Your task to perform on an android device: turn off smart reply in the gmail app Image 0: 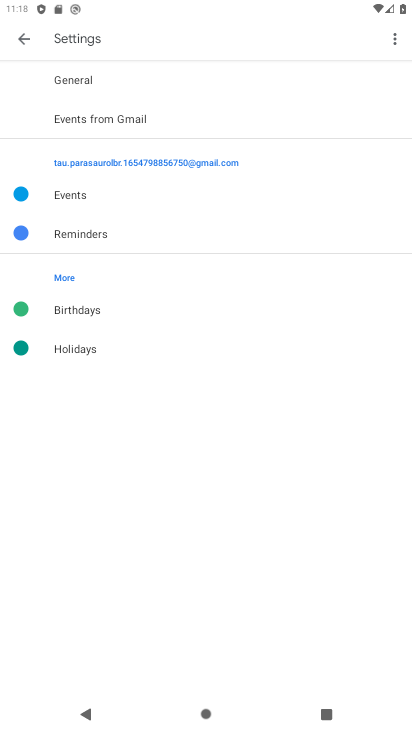
Step 0: press home button
Your task to perform on an android device: turn off smart reply in the gmail app Image 1: 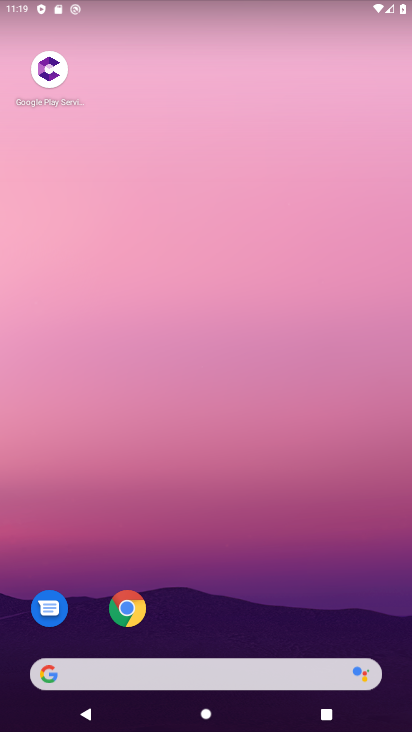
Step 1: drag from (204, 623) to (241, 79)
Your task to perform on an android device: turn off smart reply in the gmail app Image 2: 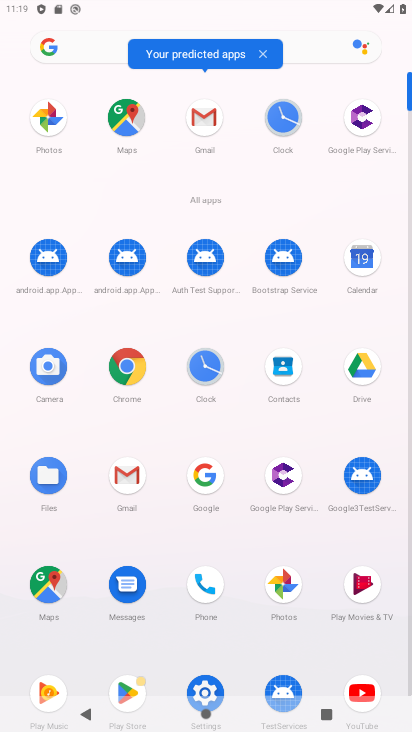
Step 2: click (124, 480)
Your task to perform on an android device: turn off smart reply in the gmail app Image 3: 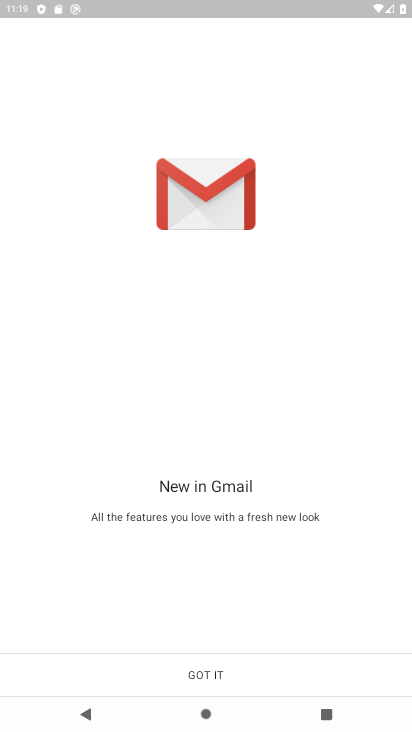
Step 3: click (244, 672)
Your task to perform on an android device: turn off smart reply in the gmail app Image 4: 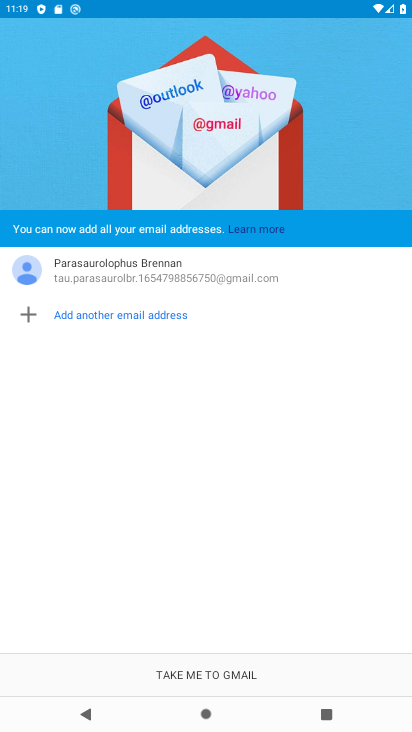
Step 4: click (244, 672)
Your task to perform on an android device: turn off smart reply in the gmail app Image 5: 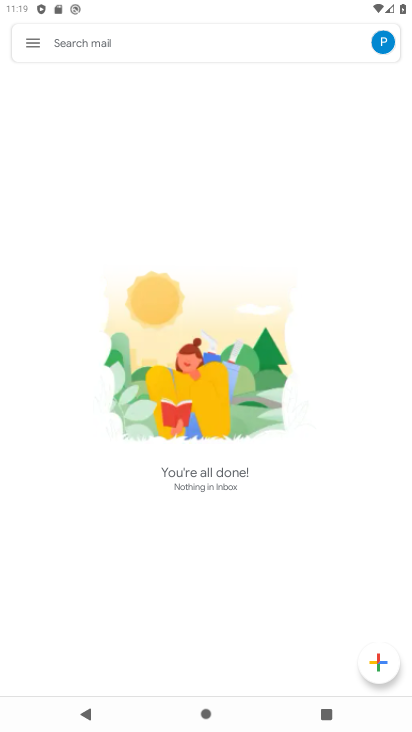
Step 5: click (37, 45)
Your task to perform on an android device: turn off smart reply in the gmail app Image 6: 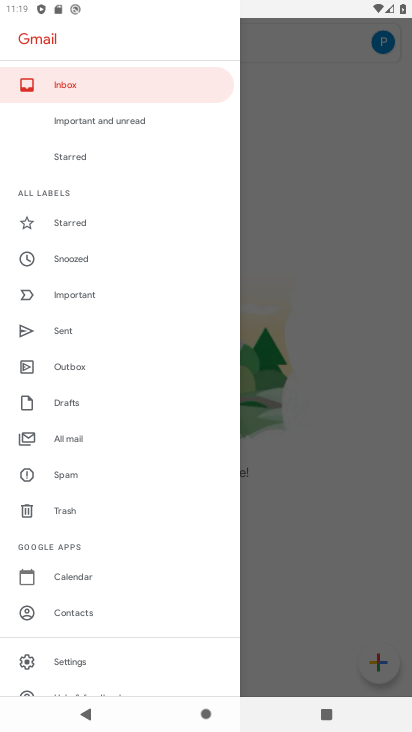
Step 6: click (80, 664)
Your task to perform on an android device: turn off smart reply in the gmail app Image 7: 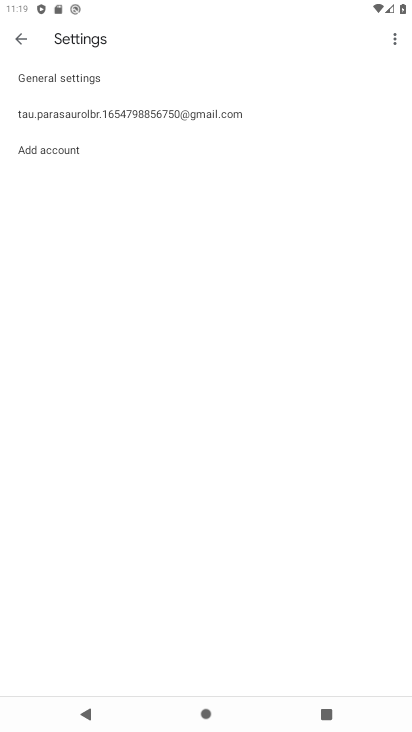
Step 7: click (160, 118)
Your task to perform on an android device: turn off smart reply in the gmail app Image 8: 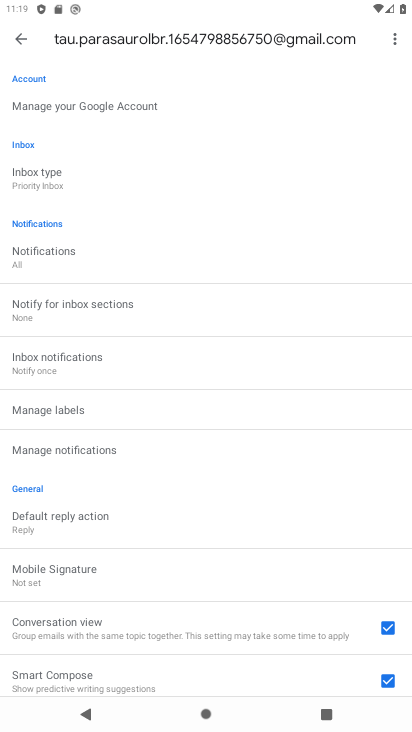
Step 8: drag from (226, 648) to (286, 366)
Your task to perform on an android device: turn off smart reply in the gmail app Image 9: 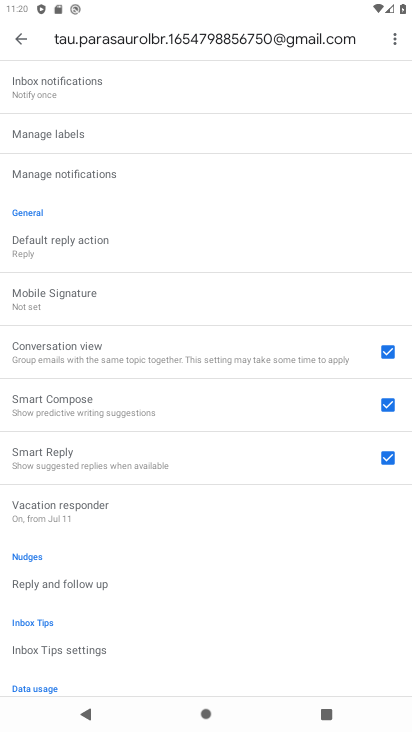
Step 9: click (206, 457)
Your task to perform on an android device: turn off smart reply in the gmail app Image 10: 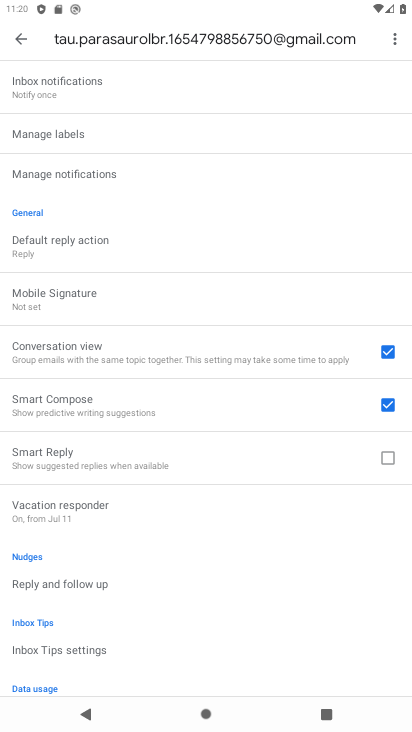
Step 10: task complete